Your task to perform on an android device: turn on location history Image 0: 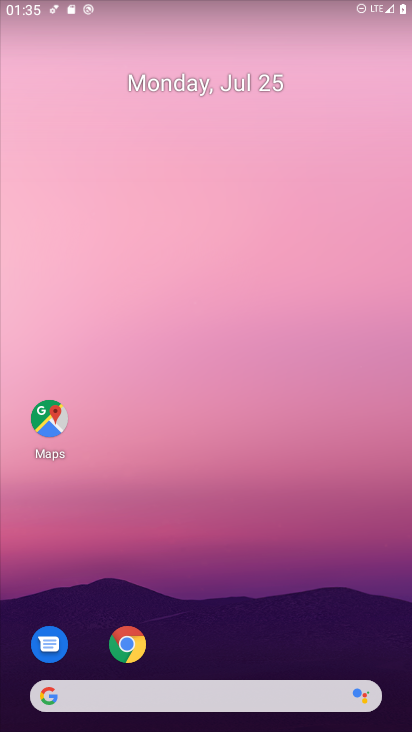
Step 0: drag from (186, 692) to (210, 2)
Your task to perform on an android device: turn on location history Image 1: 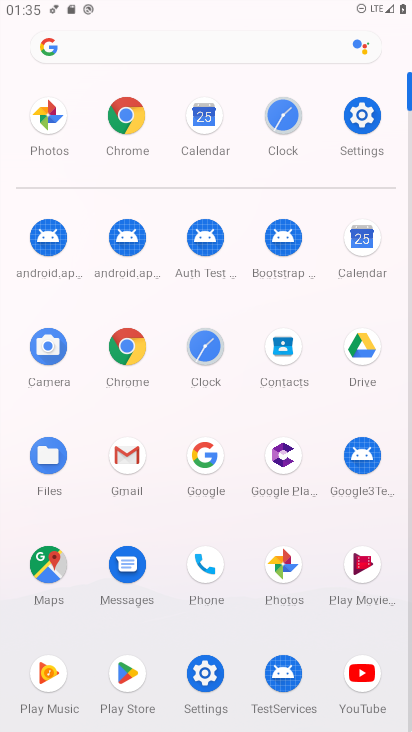
Step 1: click (209, 663)
Your task to perform on an android device: turn on location history Image 2: 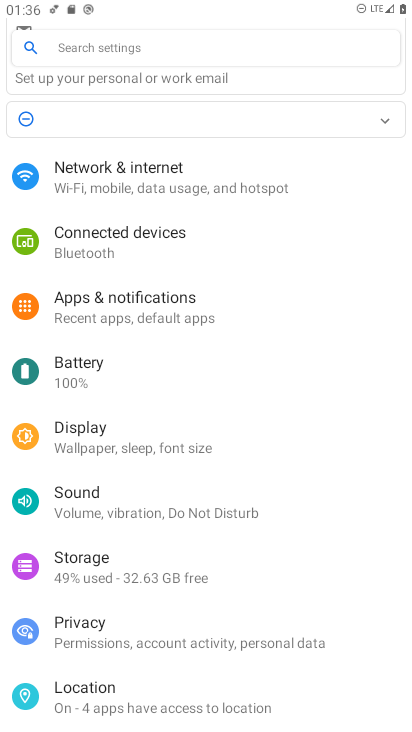
Step 2: click (94, 691)
Your task to perform on an android device: turn on location history Image 3: 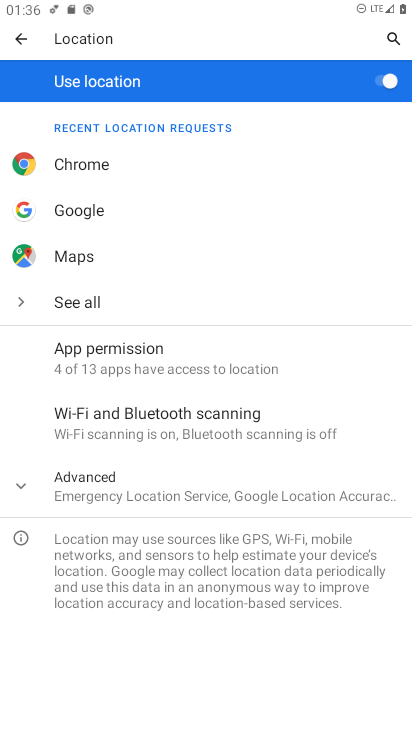
Step 3: click (159, 502)
Your task to perform on an android device: turn on location history Image 4: 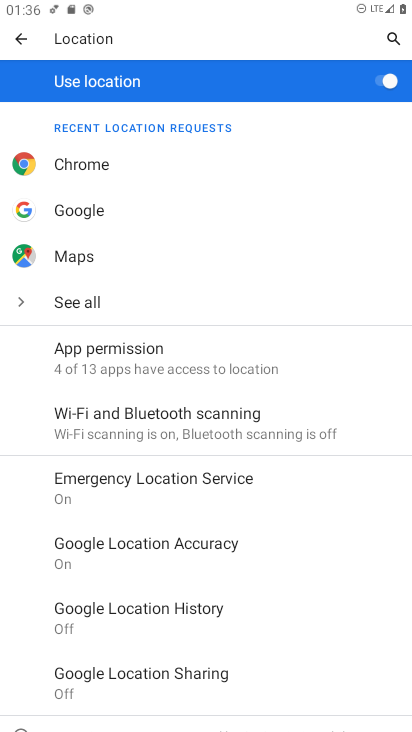
Step 4: click (135, 607)
Your task to perform on an android device: turn on location history Image 5: 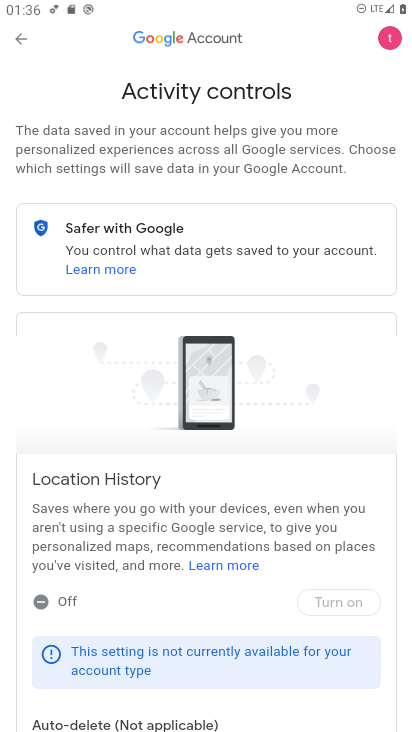
Step 5: drag from (256, 615) to (249, 308)
Your task to perform on an android device: turn on location history Image 6: 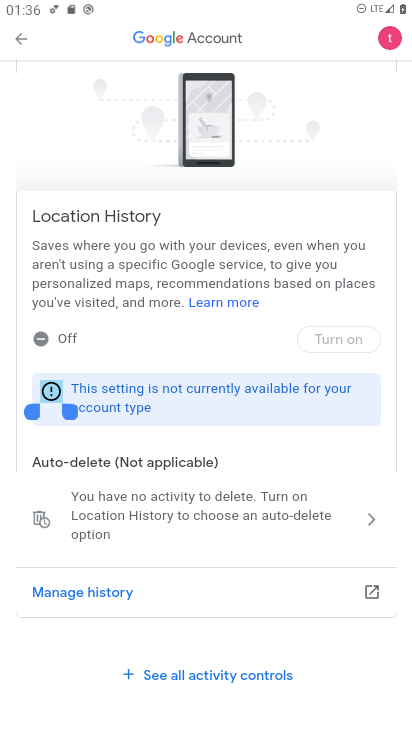
Step 6: drag from (239, 686) to (241, 413)
Your task to perform on an android device: turn on location history Image 7: 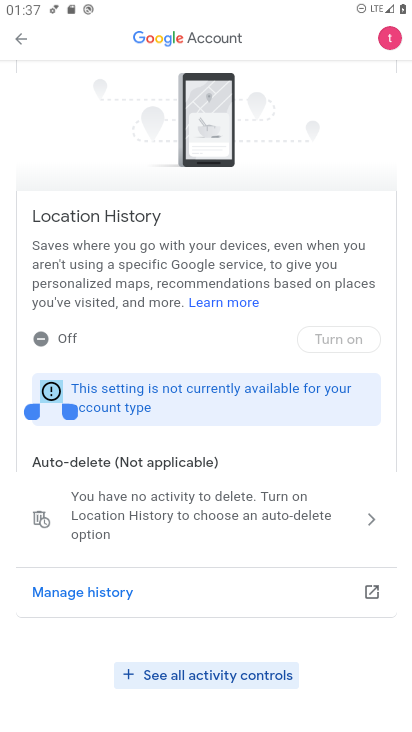
Step 7: click (276, 432)
Your task to perform on an android device: turn on location history Image 8: 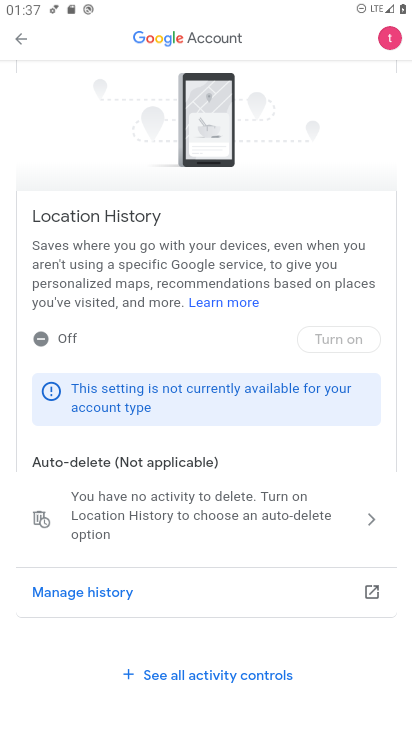
Step 8: task complete